Your task to perform on an android device: Open the Play Movies app and select the watchlist tab. Image 0: 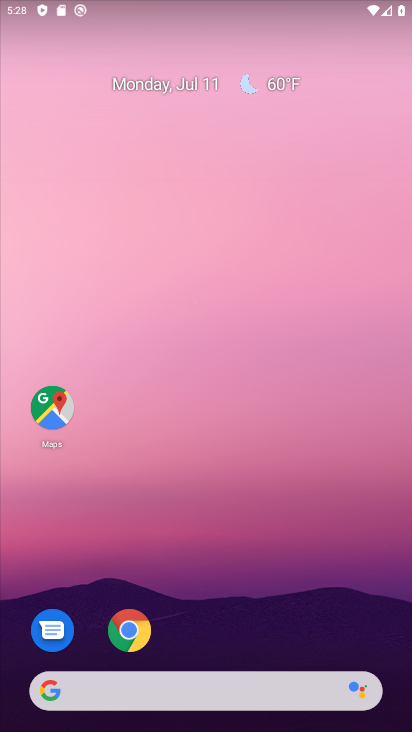
Step 0: drag from (179, 545) to (174, 43)
Your task to perform on an android device: Open the Play Movies app and select the watchlist tab. Image 1: 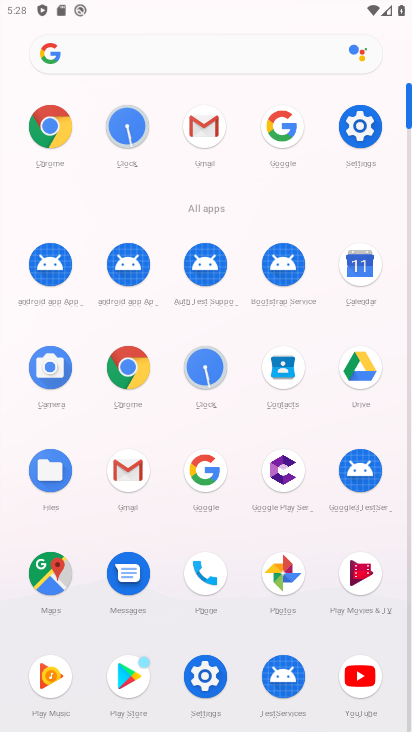
Step 1: click (358, 129)
Your task to perform on an android device: Open the Play Movies app and select the watchlist tab. Image 2: 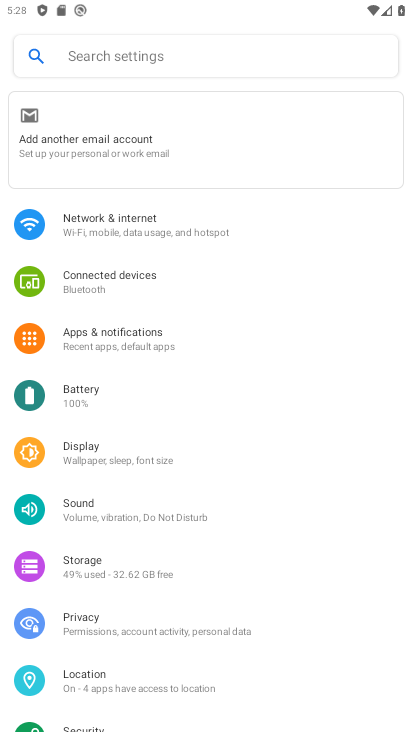
Step 2: press back button
Your task to perform on an android device: Open the Play Movies app and select the watchlist tab. Image 3: 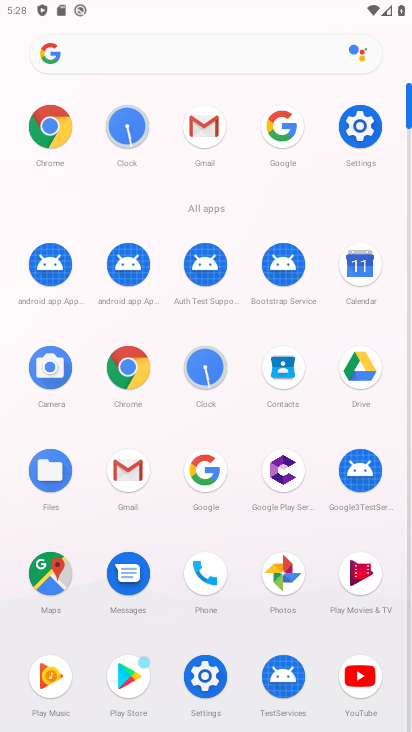
Step 3: click (350, 587)
Your task to perform on an android device: Open the Play Movies app and select the watchlist tab. Image 4: 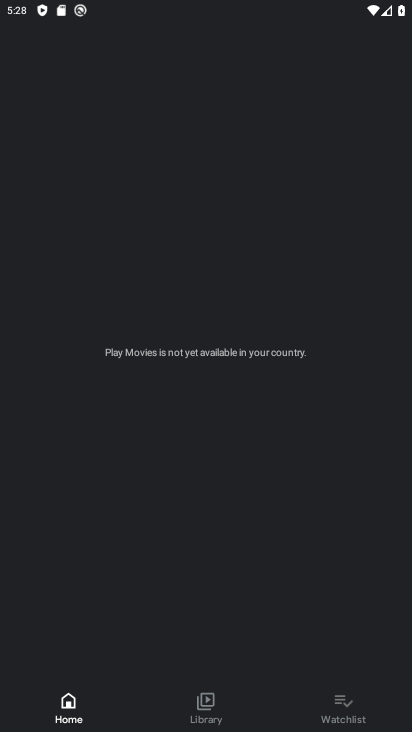
Step 4: click (341, 704)
Your task to perform on an android device: Open the Play Movies app and select the watchlist tab. Image 5: 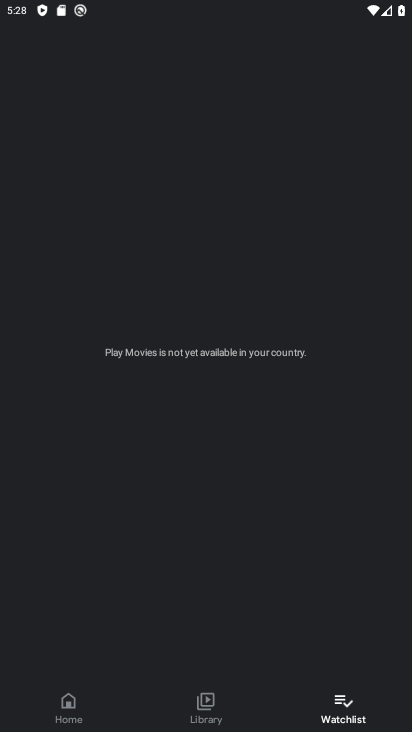
Step 5: task complete